Your task to perform on an android device: turn on airplane mode Image 0: 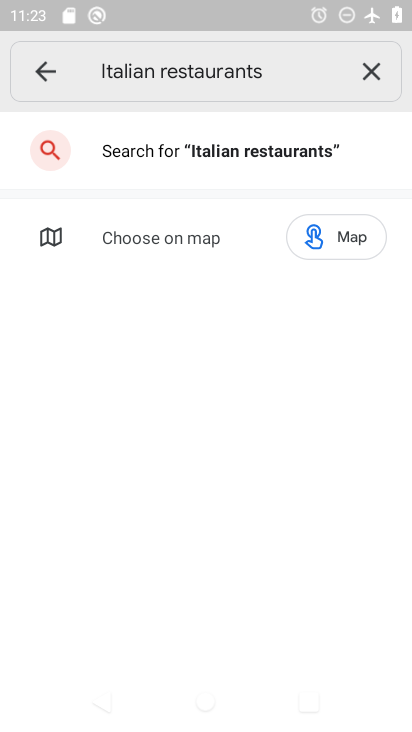
Step 0: press home button
Your task to perform on an android device: turn on airplane mode Image 1: 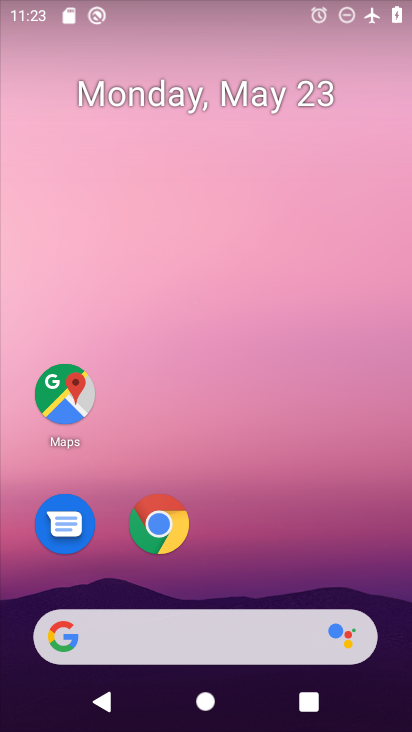
Step 1: drag from (244, 584) to (240, 144)
Your task to perform on an android device: turn on airplane mode Image 2: 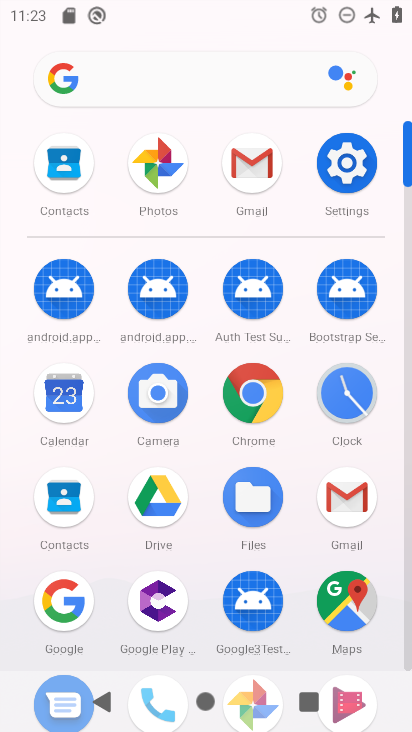
Step 2: click (325, 161)
Your task to perform on an android device: turn on airplane mode Image 3: 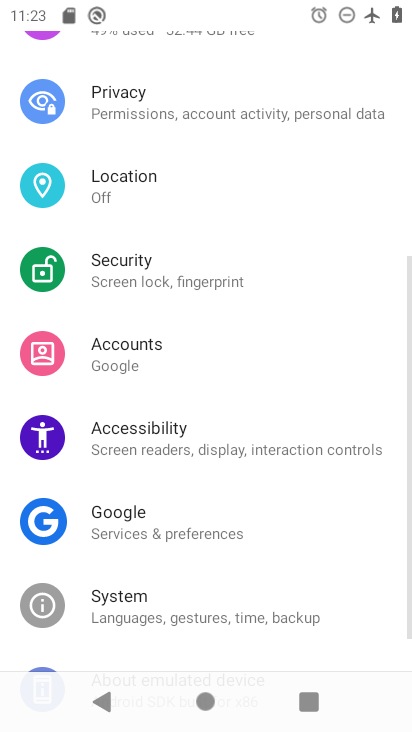
Step 3: drag from (160, 143) to (158, 597)
Your task to perform on an android device: turn on airplane mode Image 4: 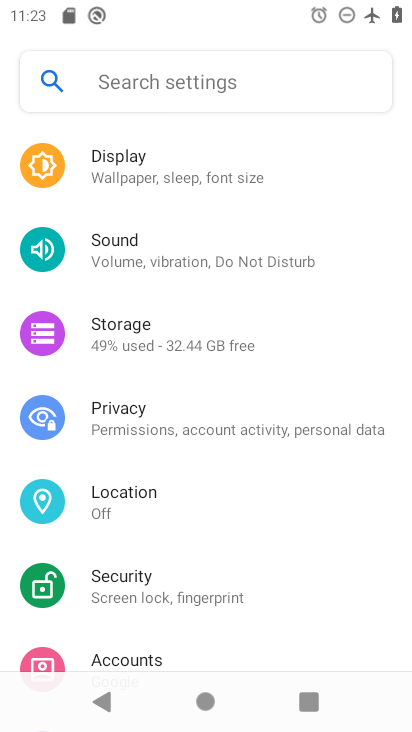
Step 4: drag from (180, 211) to (199, 533)
Your task to perform on an android device: turn on airplane mode Image 5: 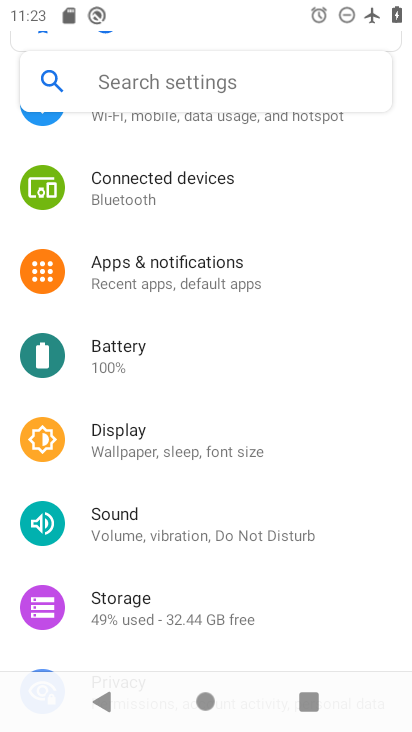
Step 5: drag from (220, 192) to (226, 537)
Your task to perform on an android device: turn on airplane mode Image 6: 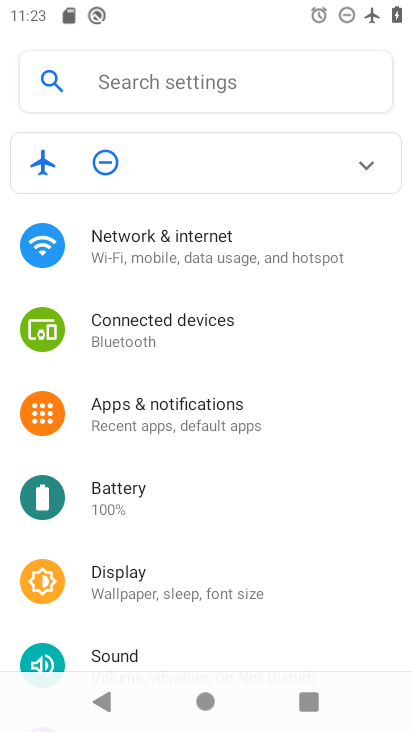
Step 6: click (193, 260)
Your task to perform on an android device: turn on airplane mode Image 7: 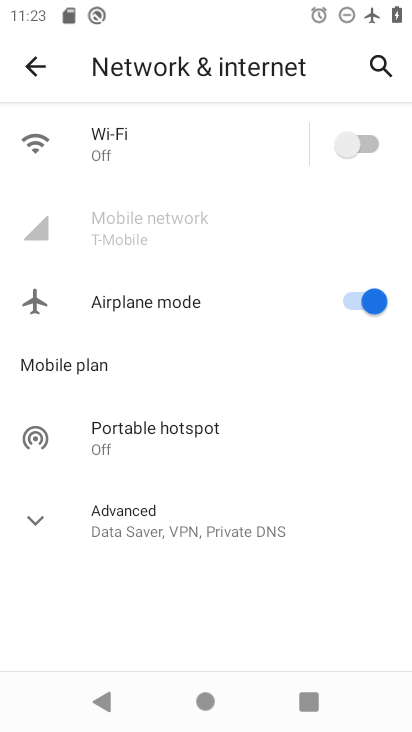
Step 7: task complete